Your task to perform on an android device: Go to Android settings Image 0: 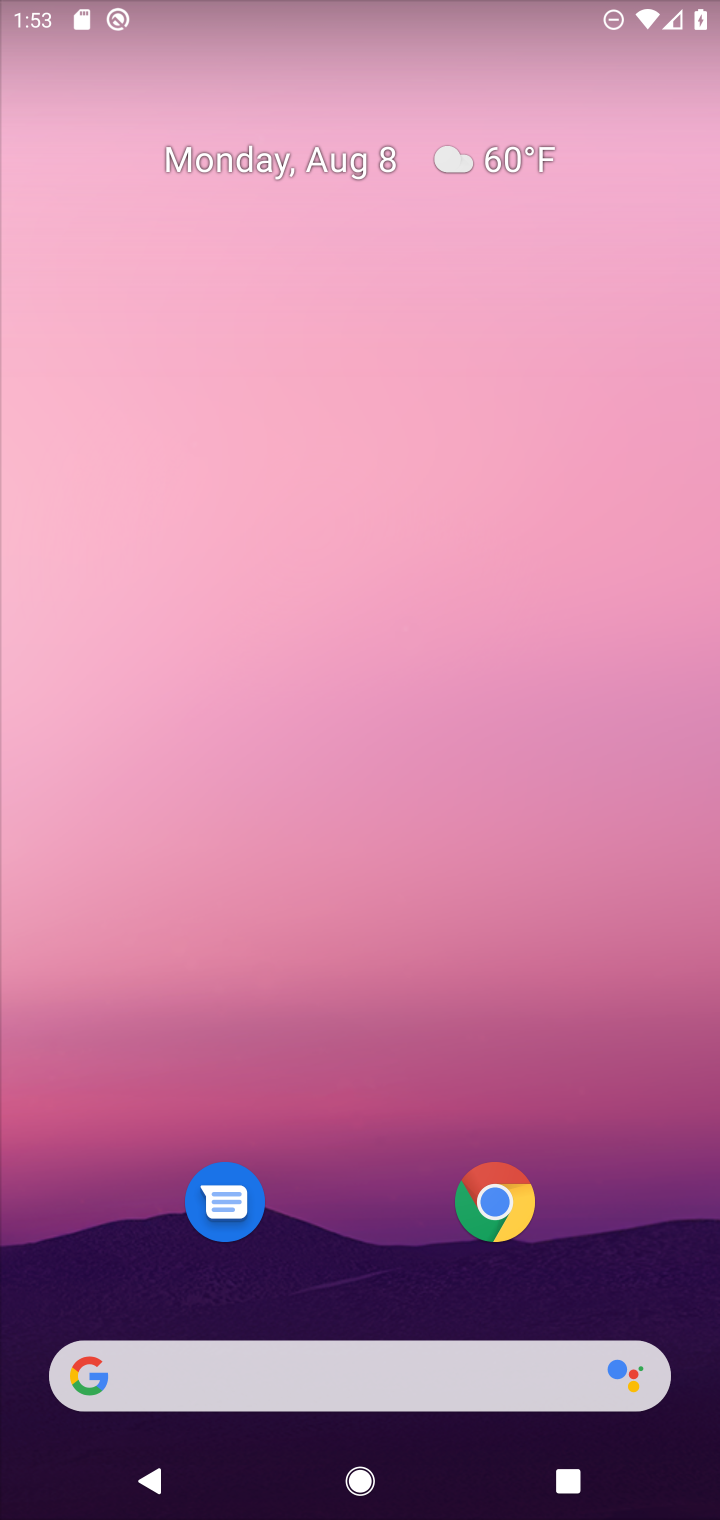
Step 0: press home button
Your task to perform on an android device: Go to Android settings Image 1: 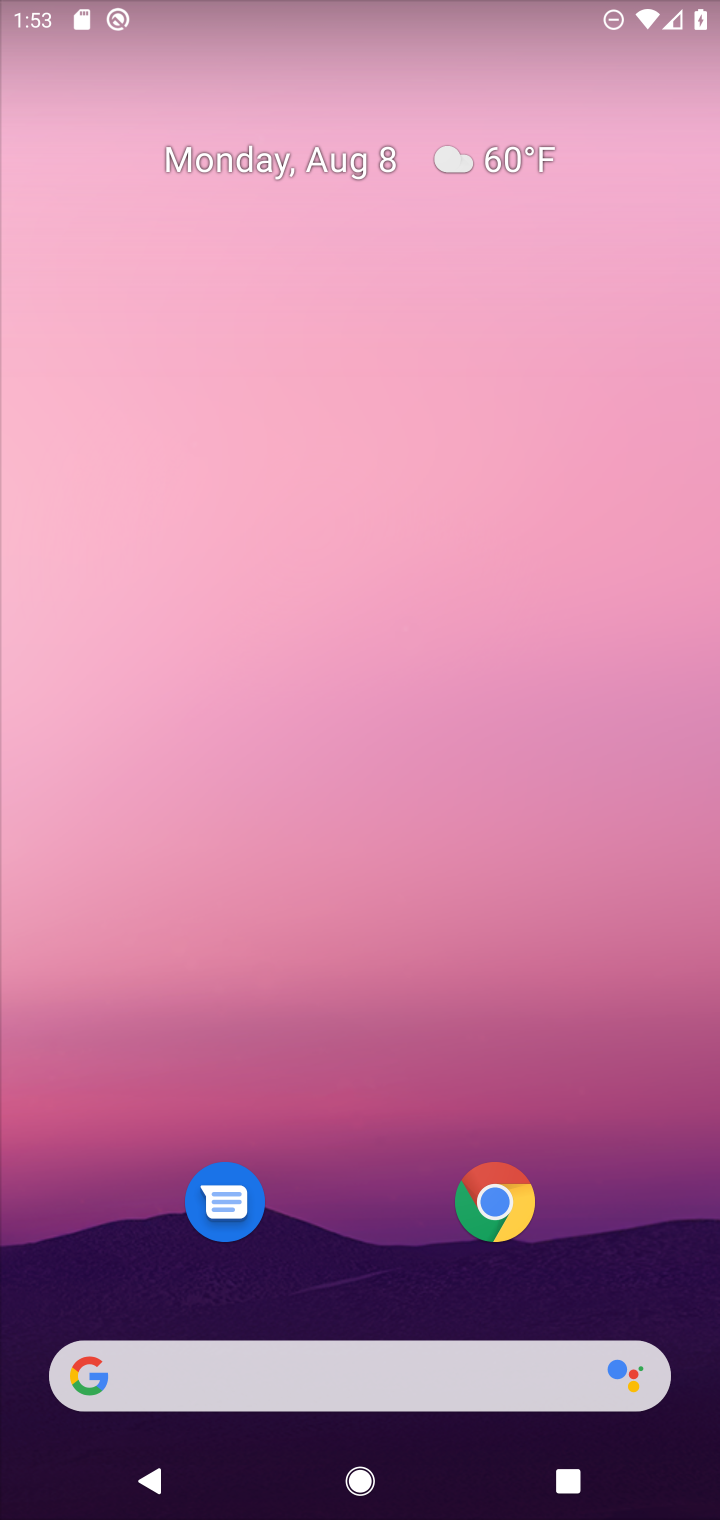
Step 1: drag from (356, 1156) to (494, 228)
Your task to perform on an android device: Go to Android settings Image 2: 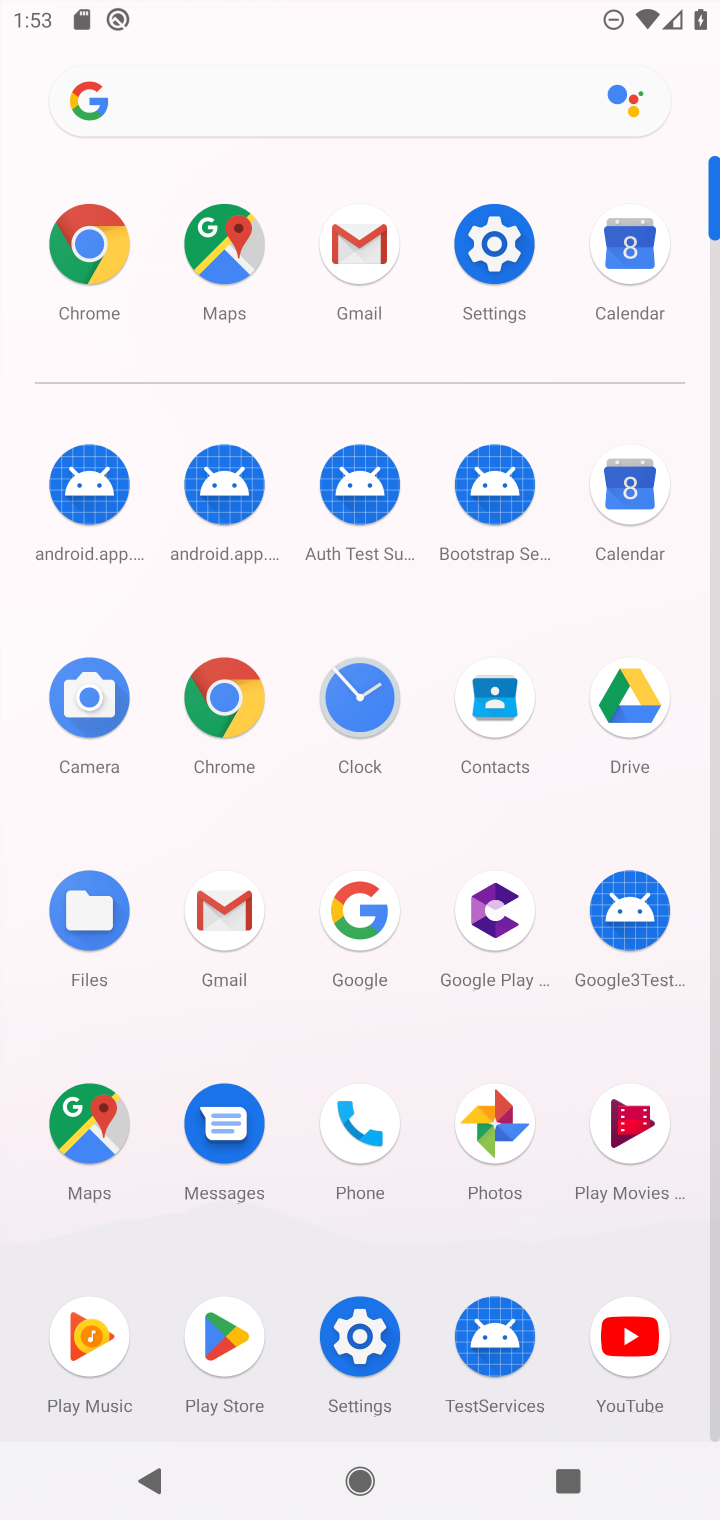
Step 2: click (505, 250)
Your task to perform on an android device: Go to Android settings Image 3: 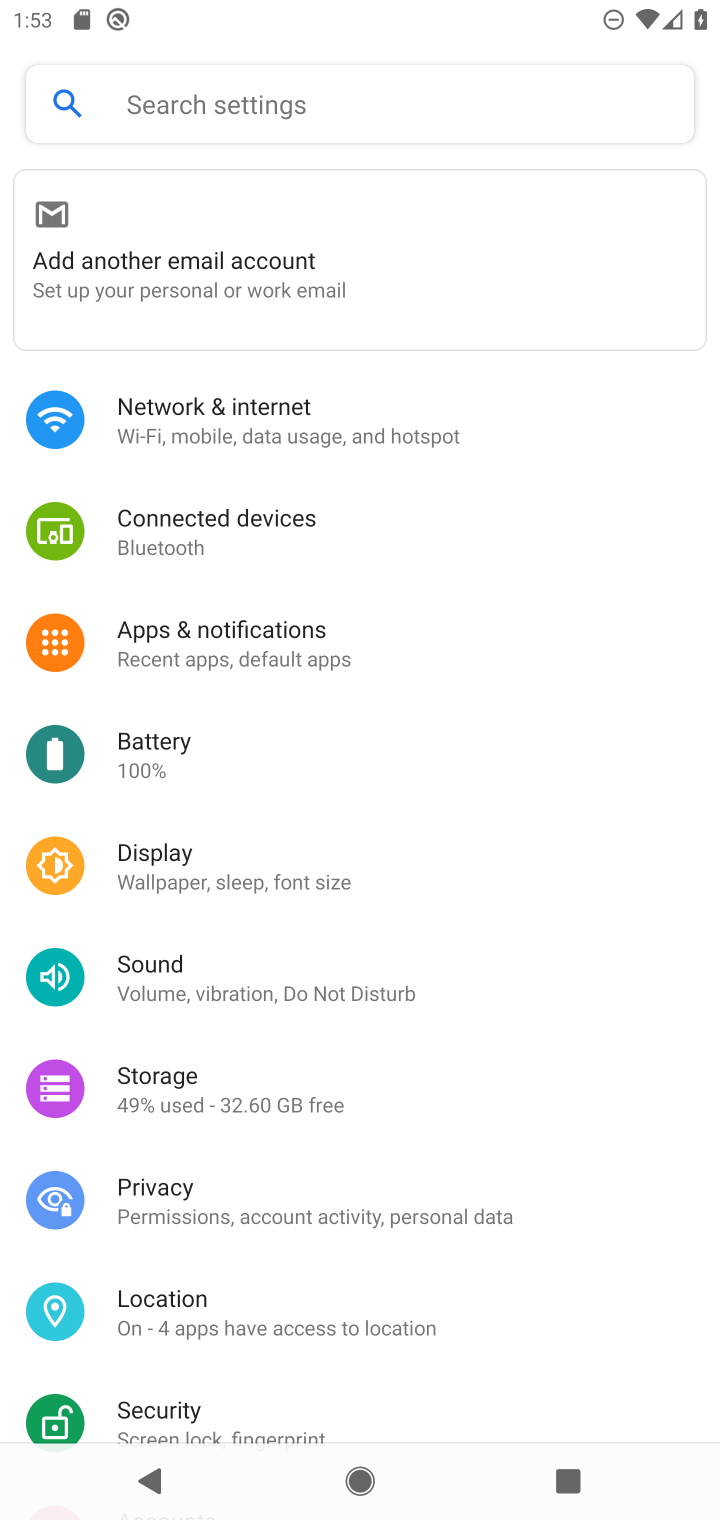
Step 3: drag from (572, 1137) to (548, 800)
Your task to perform on an android device: Go to Android settings Image 4: 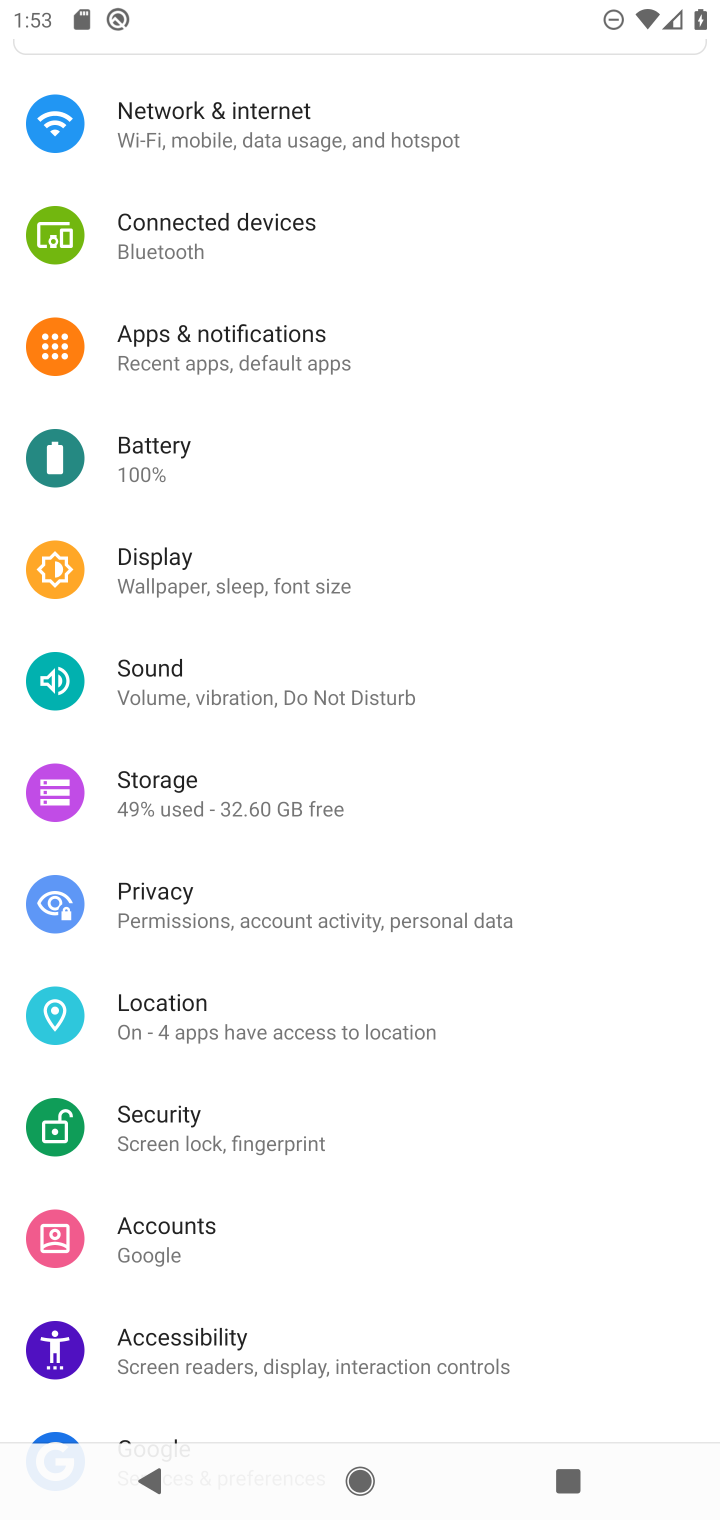
Step 4: drag from (561, 1199) to (555, 860)
Your task to perform on an android device: Go to Android settings Image 5: 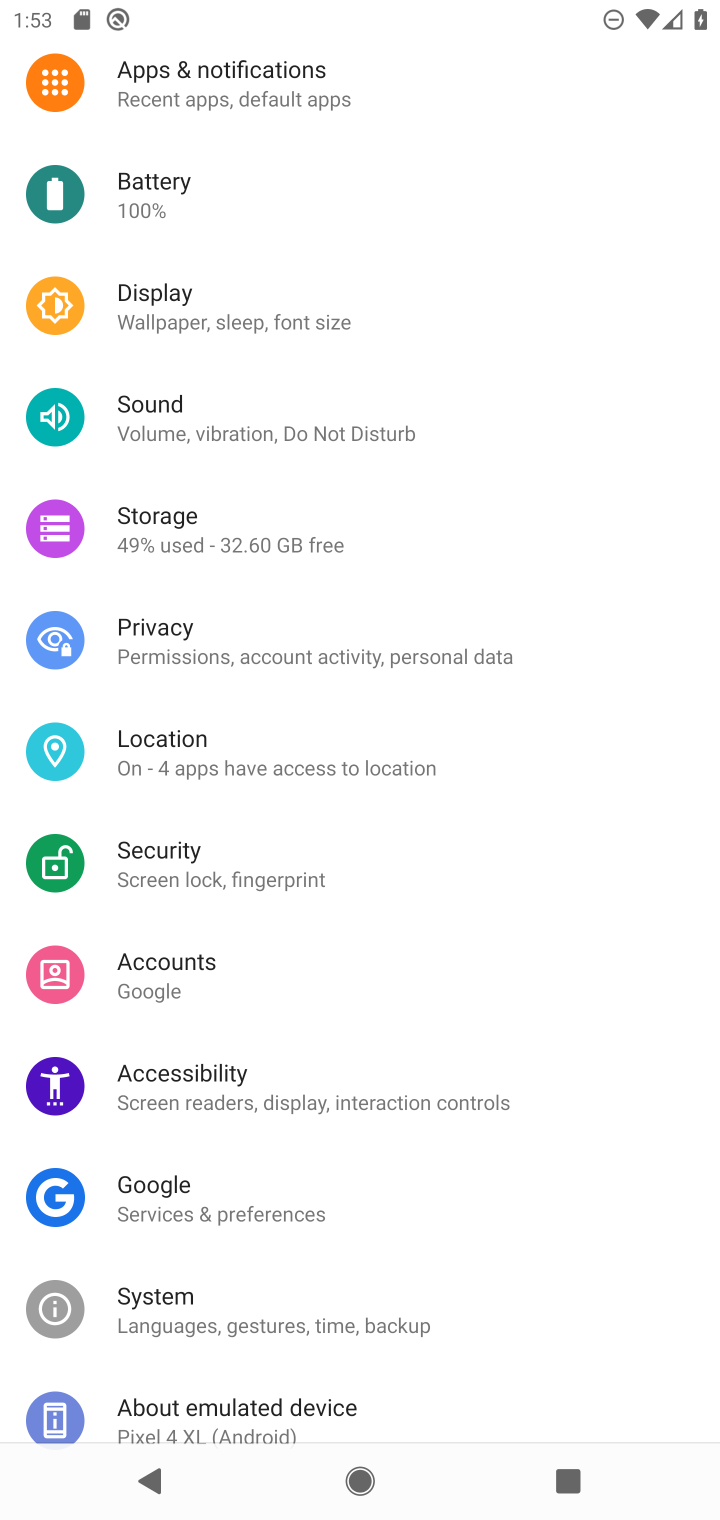
Step 5: drag from (561, 1222) to (558, 801)
Your task to perform on an android device: Go to Android settings Image 6: 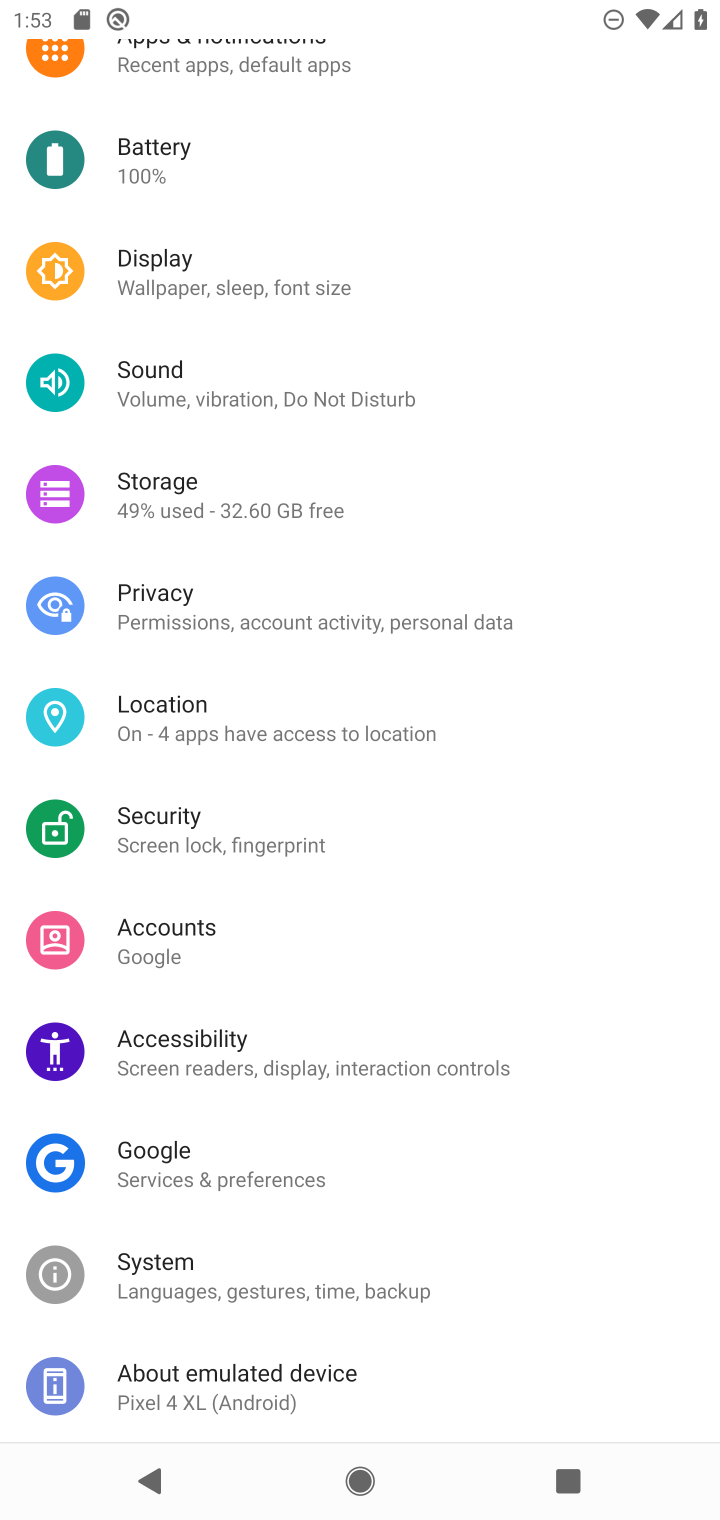
Step 6: drag from (550, 1072) to (555, 802)
Your task to perform on an android device: Go to Android settings Image 7: 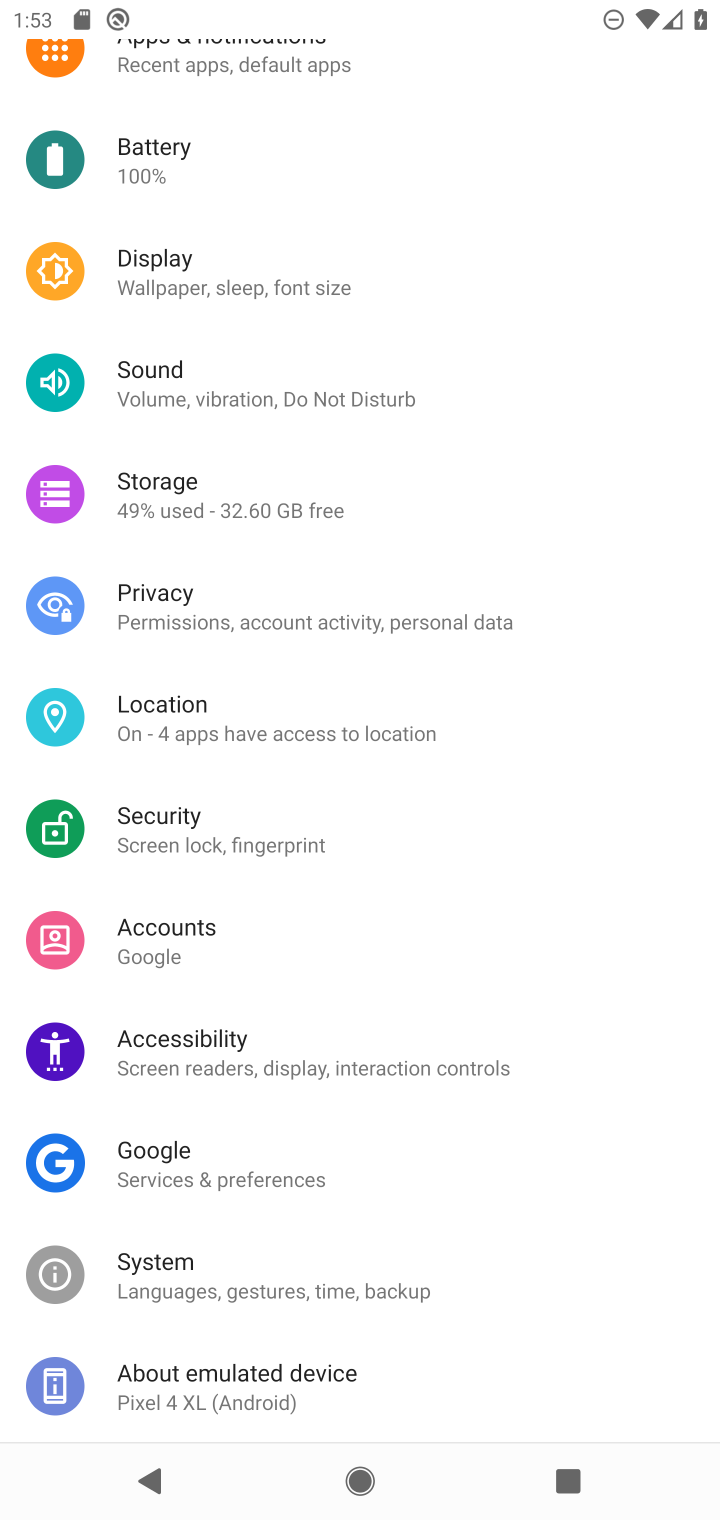
Step 7: drag from (609, 660) to (599, 874)
Your task to perform on an android device: Go to Android settings Image 8: 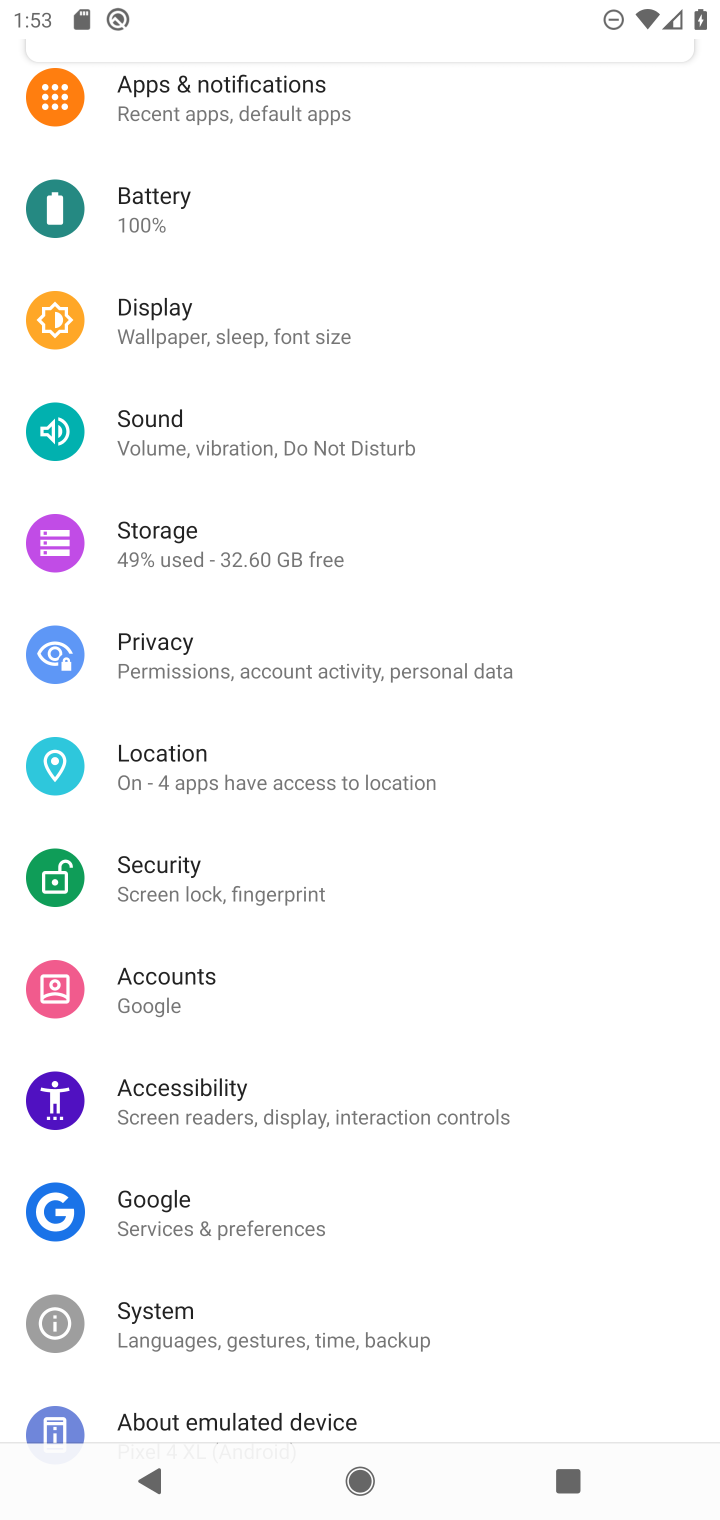
Step 8: click (371, 1320)
Your task to perform on an android device: Go to Android settings Image 9: 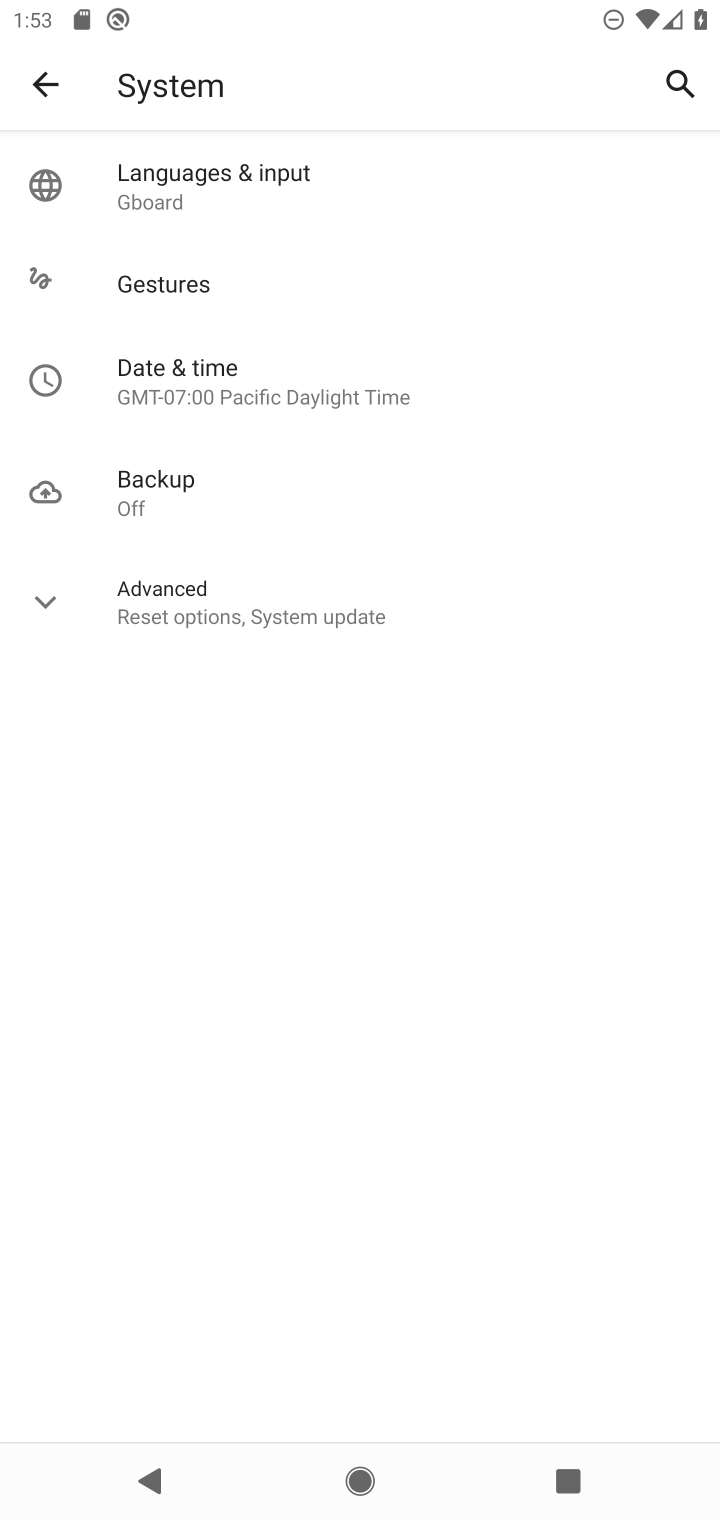
Step 9: click (288, 594)
Your task to perform on an android device: Go to Android settings Image 10: 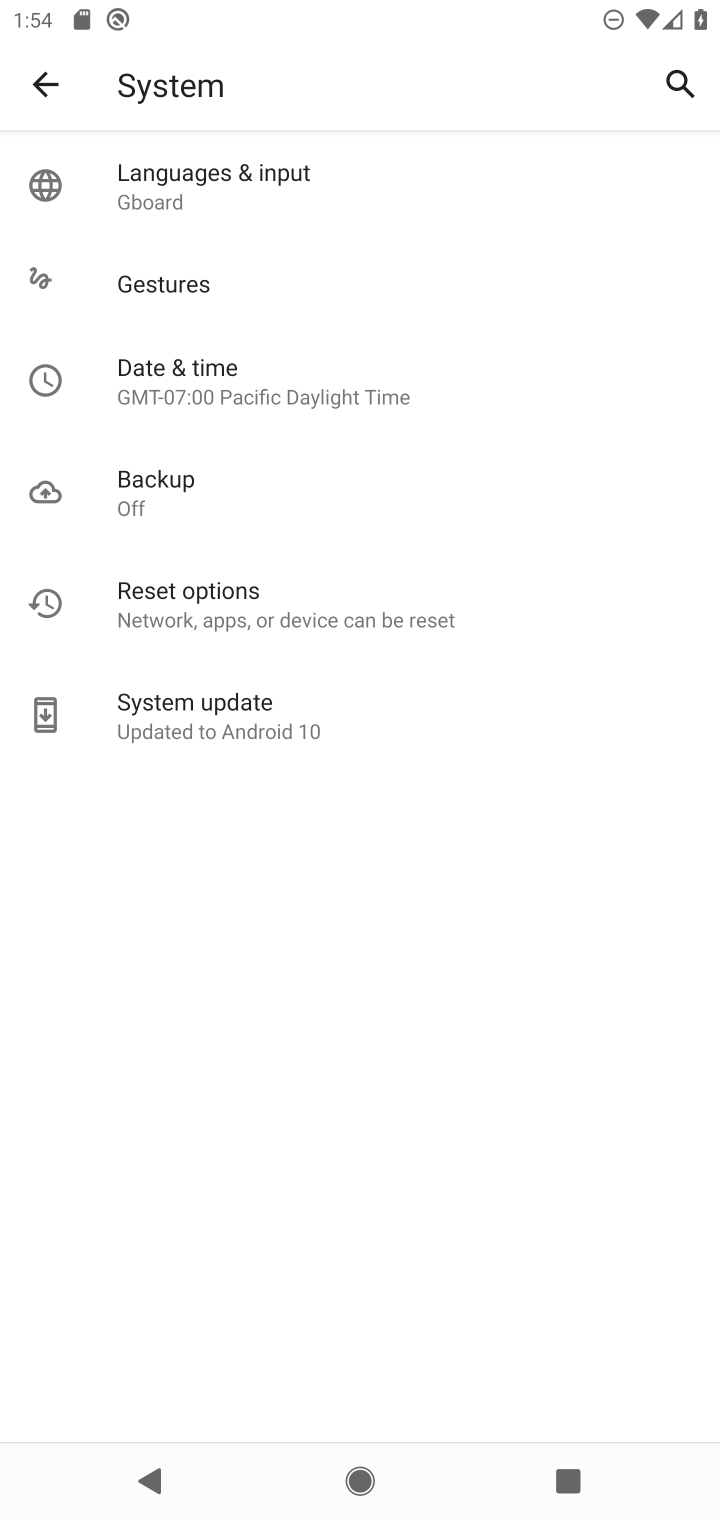
Step 10: task complete